Your task to perform on an android device: toggle improve location accuracy Image 0: 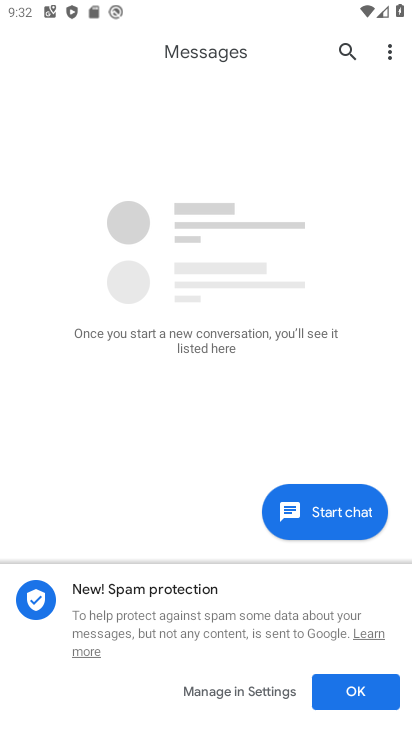
Step 0: press home button
Your task to perform on an android device: toggle improve location accuracy Image 1: 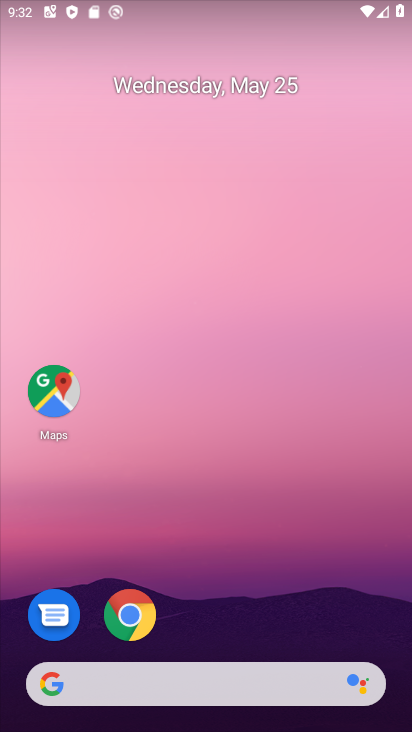
Step 1: drag from (228, 566) to (257, 6)
Your task to perform on an android device: toggle improve location accuracy Image 2: 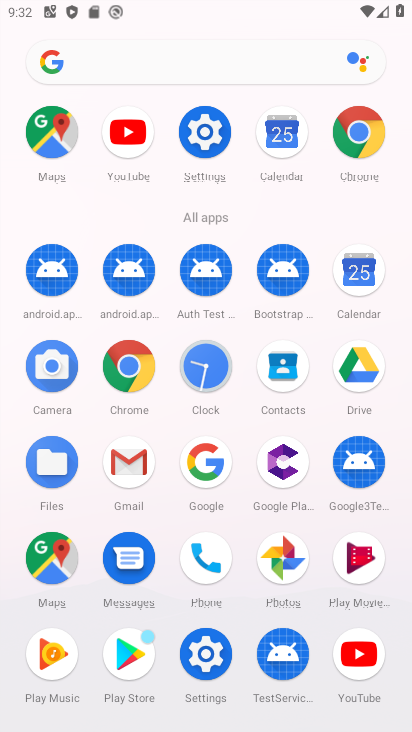
Step 2: click (204, 135)
Your task to perform on an android device: toggle improve location accuracy Image 3: 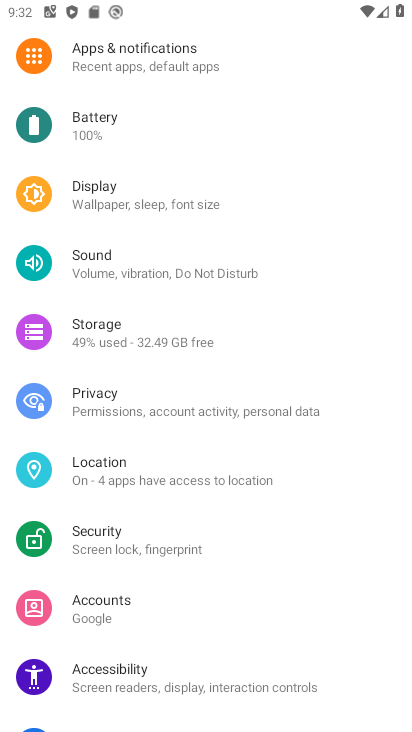
Step 3: click (228, 487)
Your task to perform on an android device: toggle improve location accuracy Image 4: 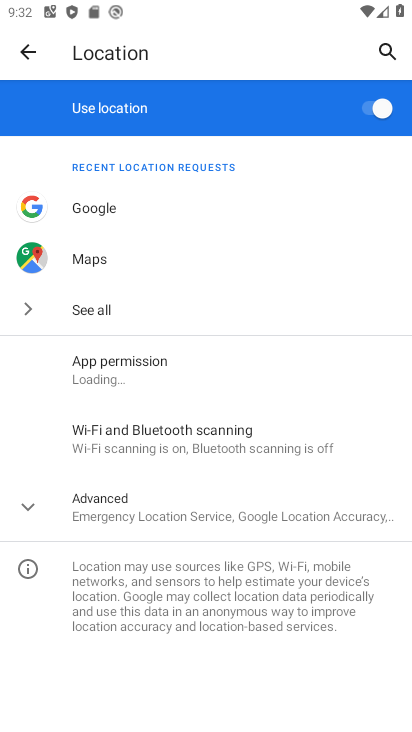
Step 4: click (25, 504)
Your task to perform on an android device: toggle improve location accuracy Image 5: 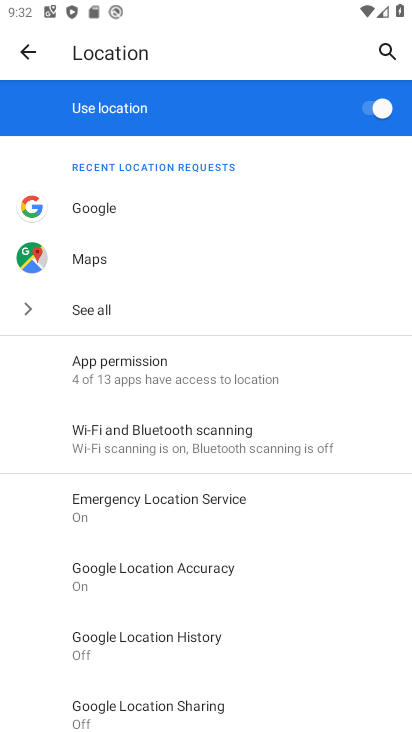
Step 5: click (228, 574)
Your task to perform on an android device: toggle improve location accuracy Image 6: 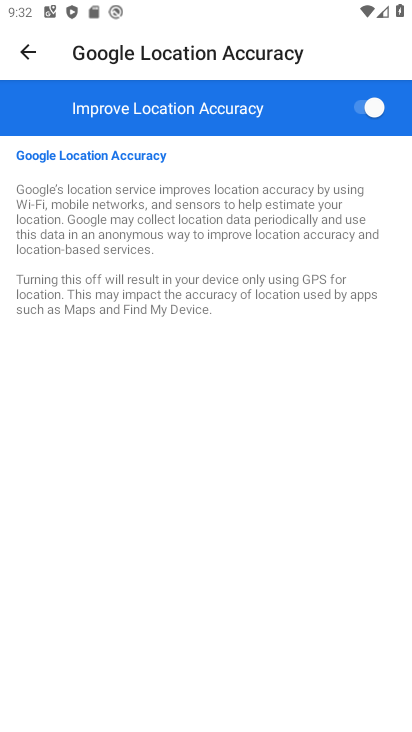
Step 6: click (370, 108)
Your task to perform on an android device: toggle improve location accuracy Image 7: 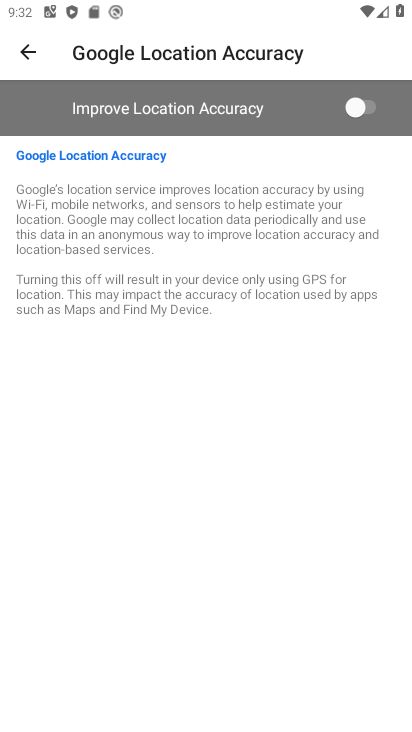
Step 7: task complete